Your task to perform on an android device: Do I have any events today? Image 0: 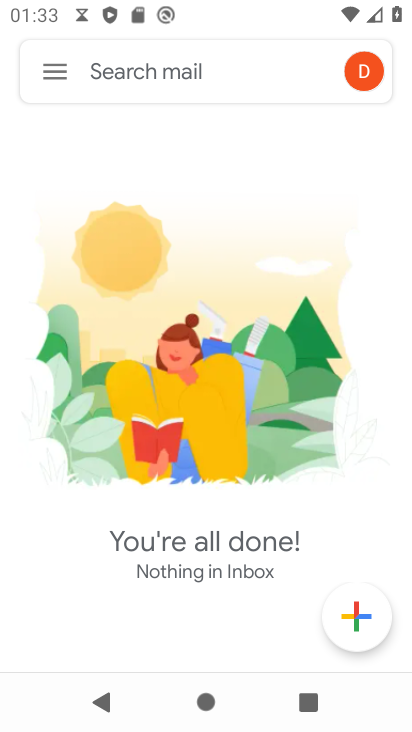
Step 0: press home button
Your task to perform on an android device: Do I have any events today? Image 1: 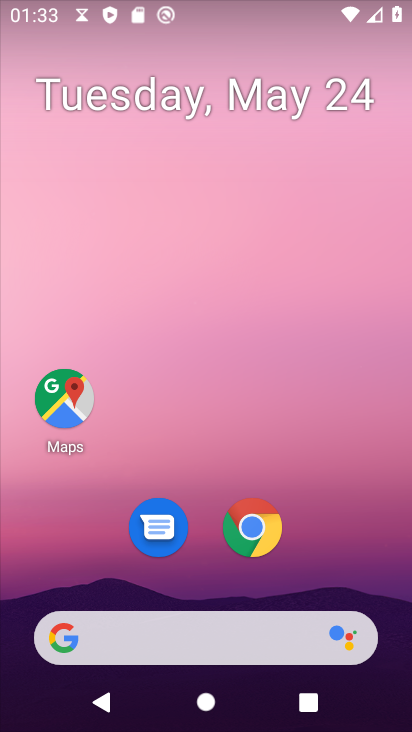
Step 1: drag from (124, 643) to (286, 121)
Your task to perform on an android device: Do I have any events today? Image 2: 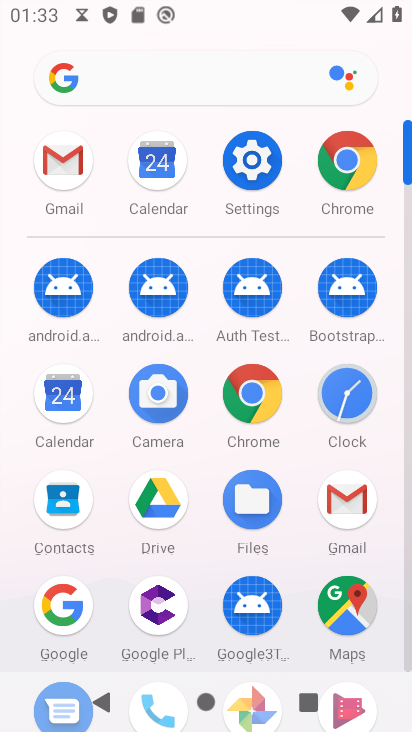
Step 2: click (155, 172)
Your task to perform on an android device: Do I have any events today? Image 3: 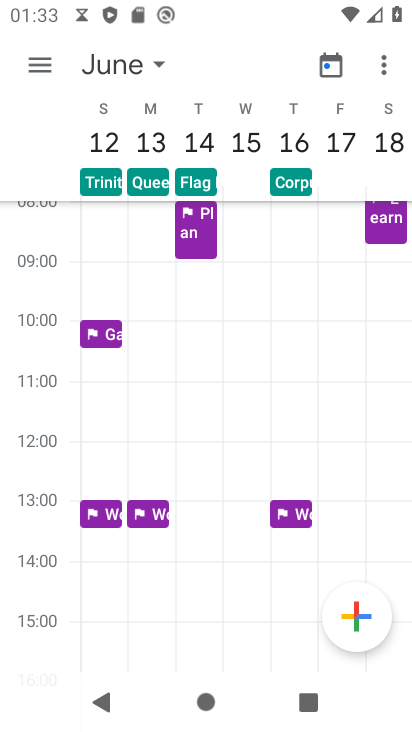
Step 3: click (111, 71)
Your task to perform on an android device: Do I have any events today? Image 4: 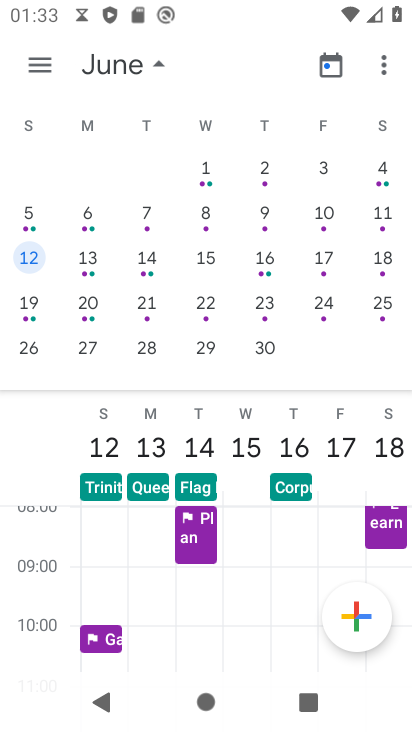
Step 4: drag from (98, 295) to (412, 302)
Your task to perform on an android device: Do I have any events today? Image 5: 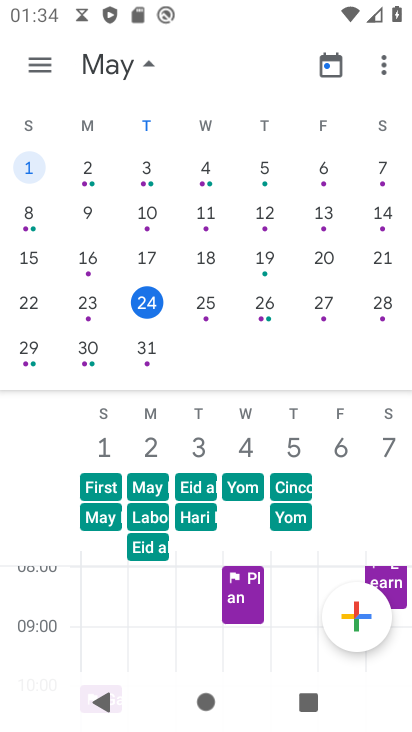
Step 5: click (156, 305)
Your task to perform on an android device: Do I have any events today? Image 6: 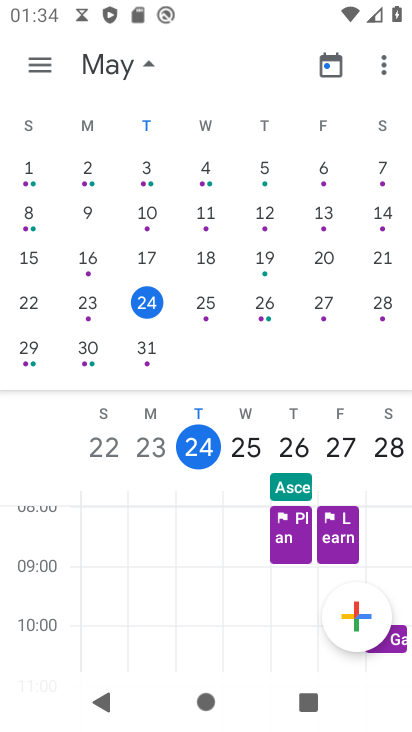
Step 6: click (38, 56)
Your task to perform on an android device: Do I have any events today? Image 7: 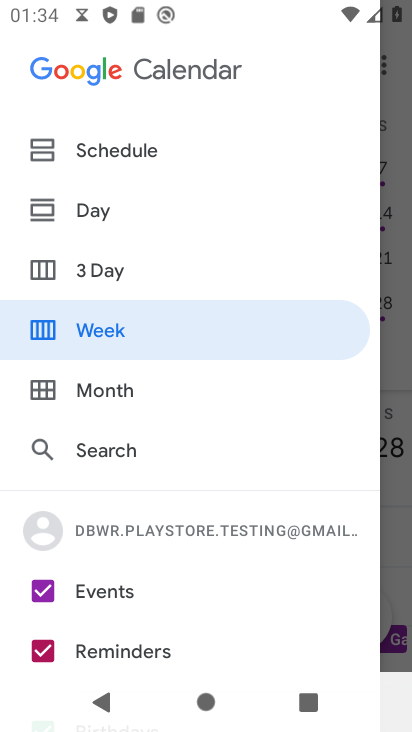
Step 7: click (101, 207)
Your task to perform on an android device: Do I have any events today? Image 8: 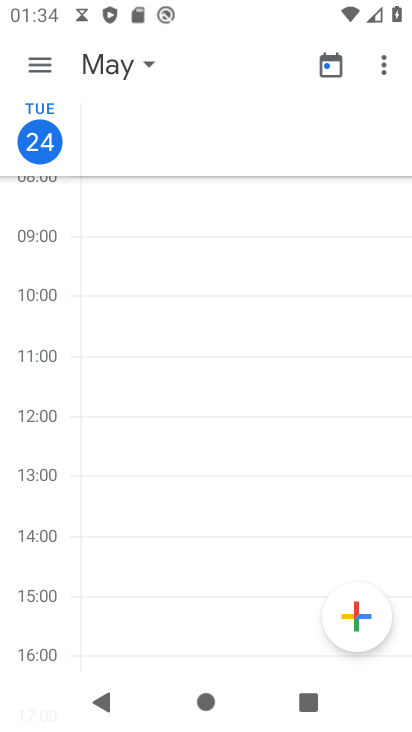
Step 8: click (55, 62)
Your task to perform on an android device: Do I have any events today? Image 9: 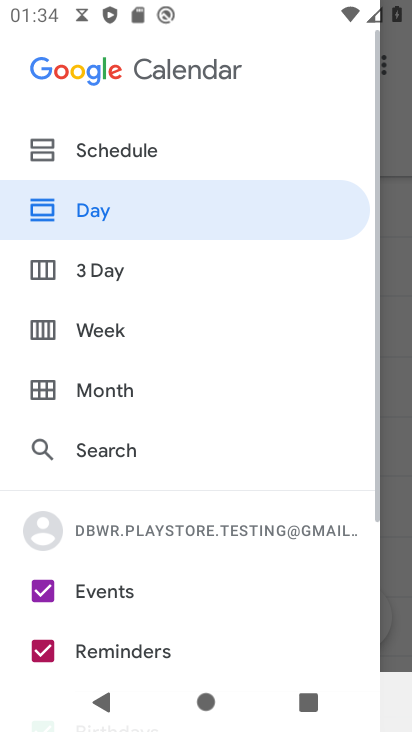
Step 9: click (142, 154)
Your task to perform on an android device: Do I have any events today? Image 10: 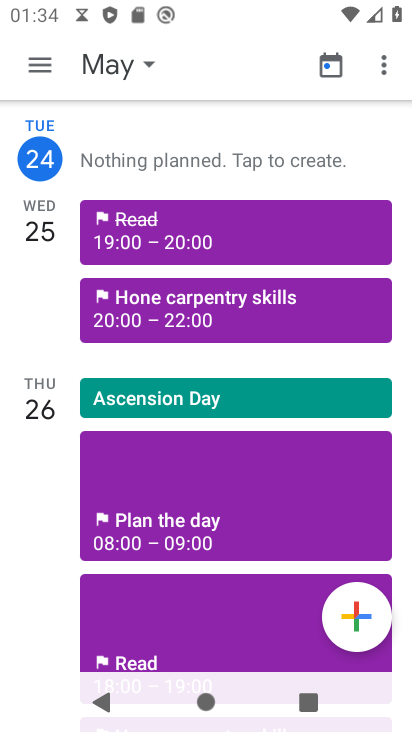
Step 10: task complete